Your task to perform on an android device: Search for Mexican restaurants on Maps Image 0: 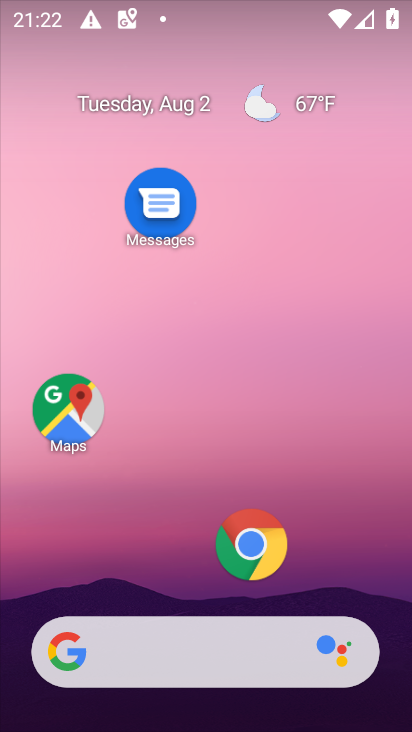
Step 0: click (54, 426)
Your task to perform on an android device: Search for Mexican restaurants on Maps Image 1: 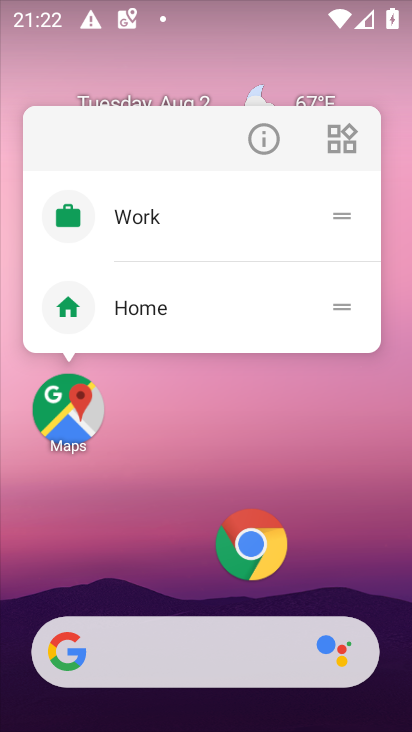
Step 1: click (54, 426)
Your task to perform on an android device: Search for Mexican restaurants on Maps Image 2: 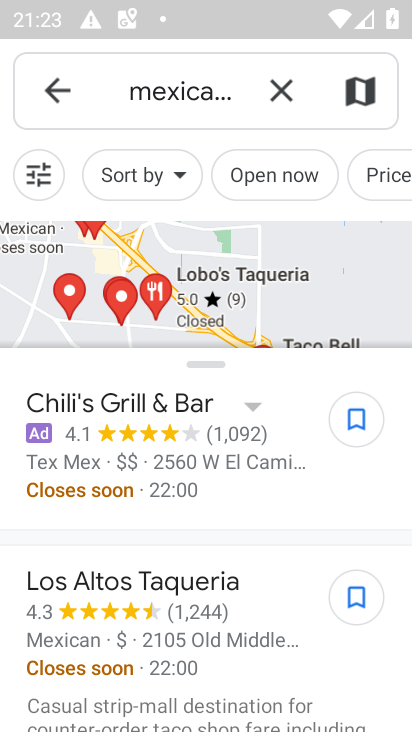
Step 2: task complete